Your task to perform on an android device: Go to Yahoo.com Image 0: 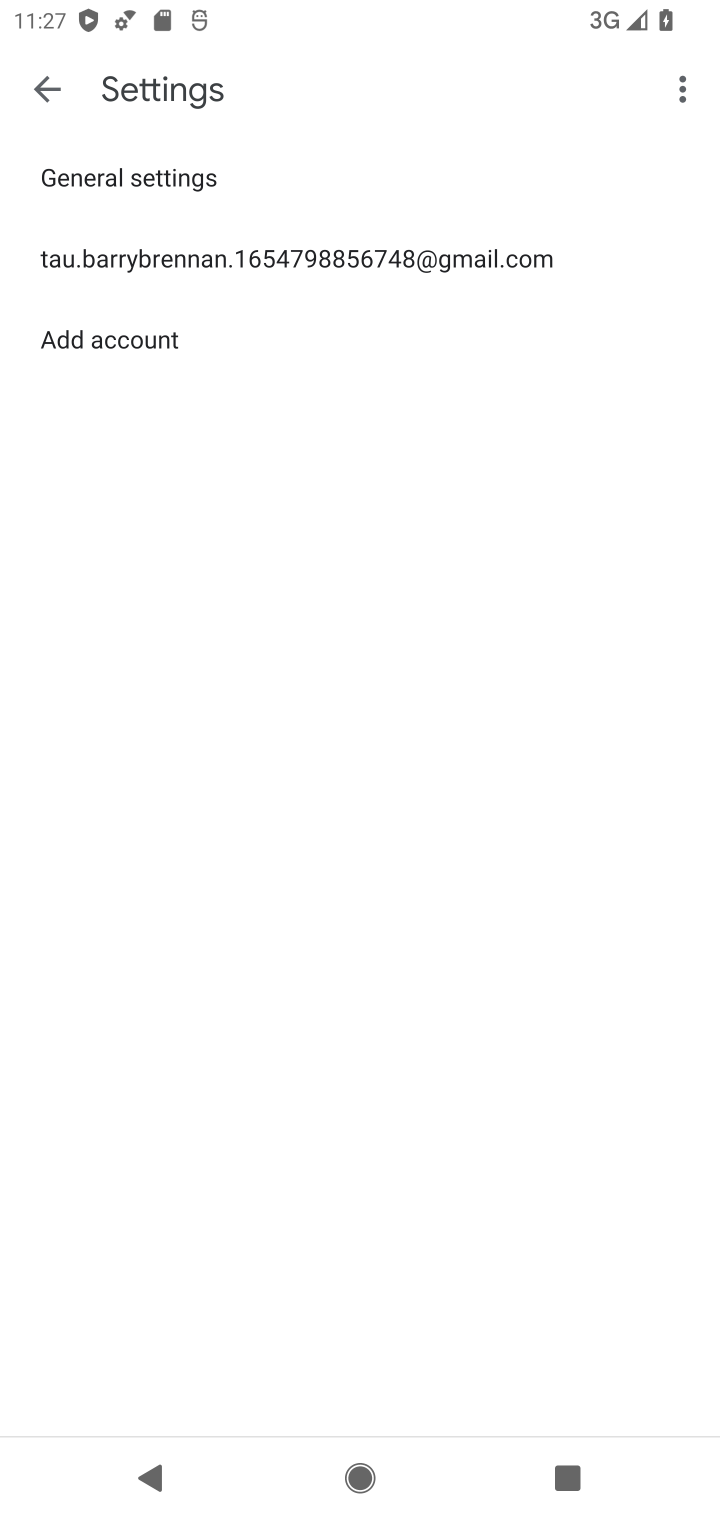
Step 0: press home button
Your task to perform on an android device: Go to Yahoo.com Image 1: 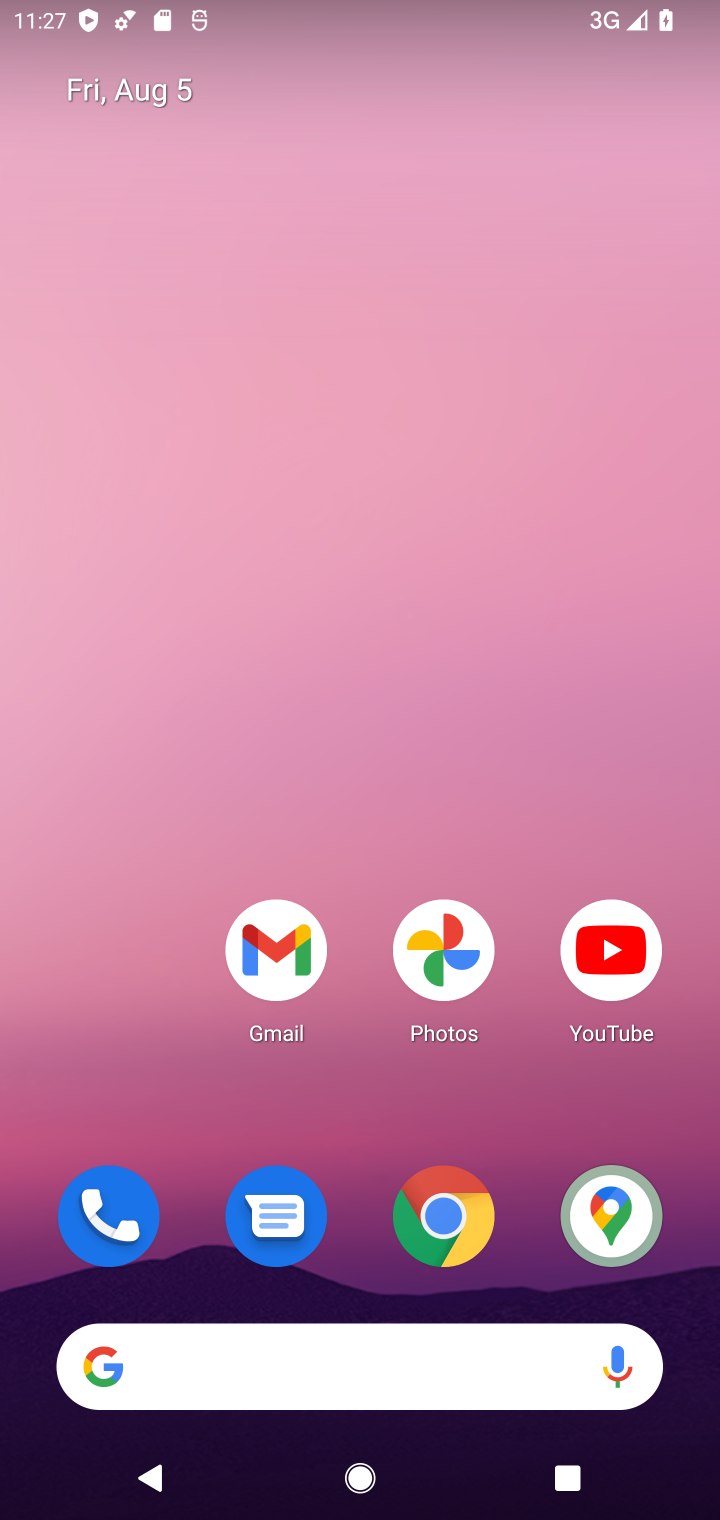
Step 1: drag from (351, 971) to (411, 316)
Your task to perform on an android device: Go to Yahoo.com Image 2: 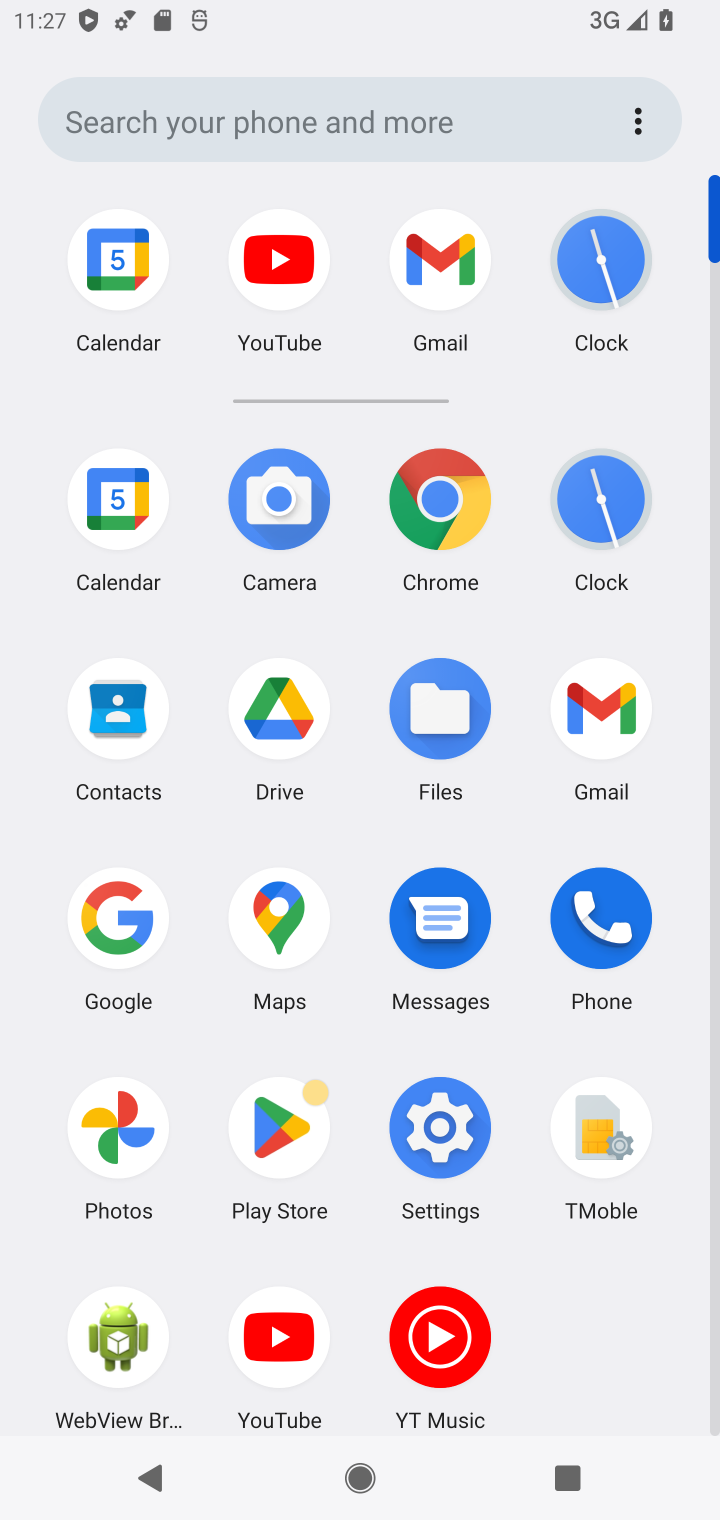
Step 2: click (441, 524)
Your task to perform on an android device: Go to Yahoo.com Image 3: 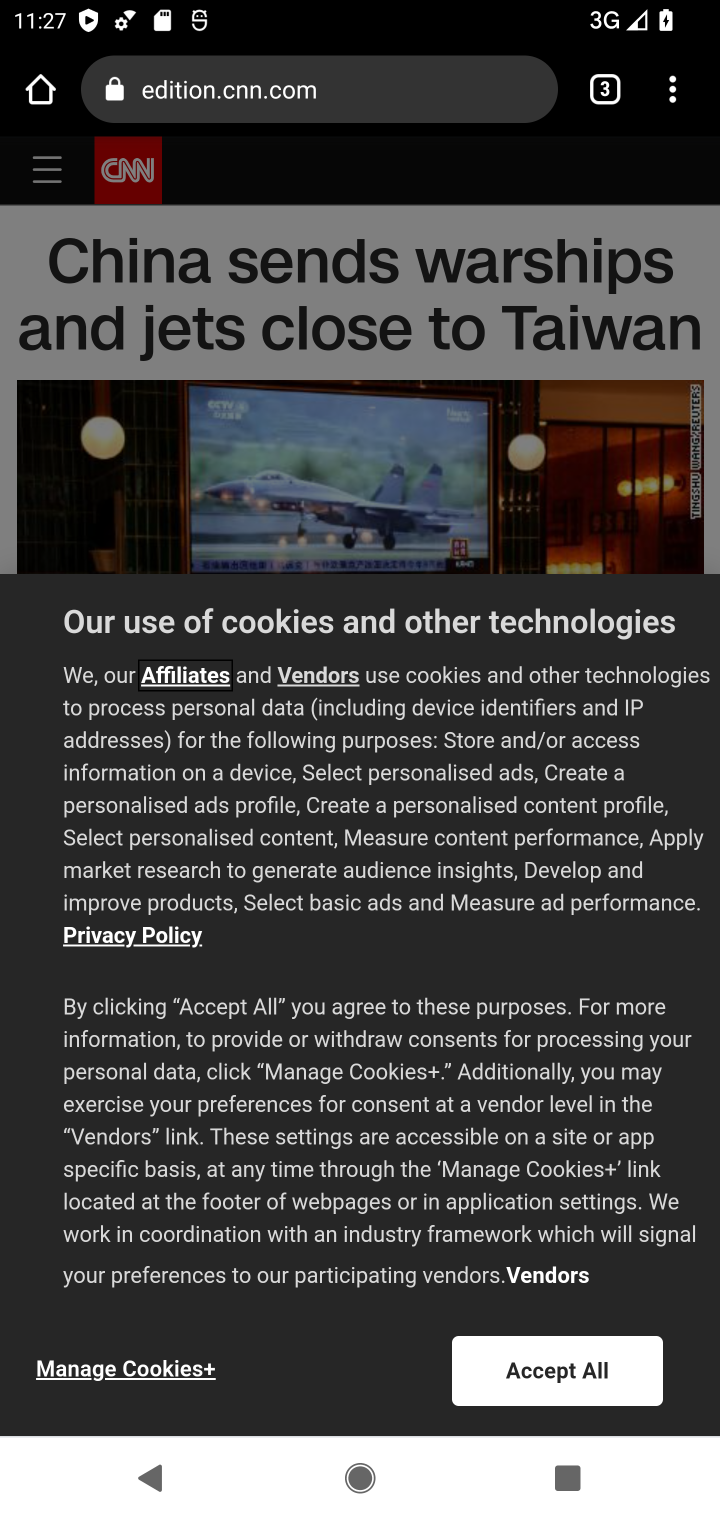
Step 3: click (253, 67)
Your task to perform on an android device: Go to Yahoo.com Image 4: 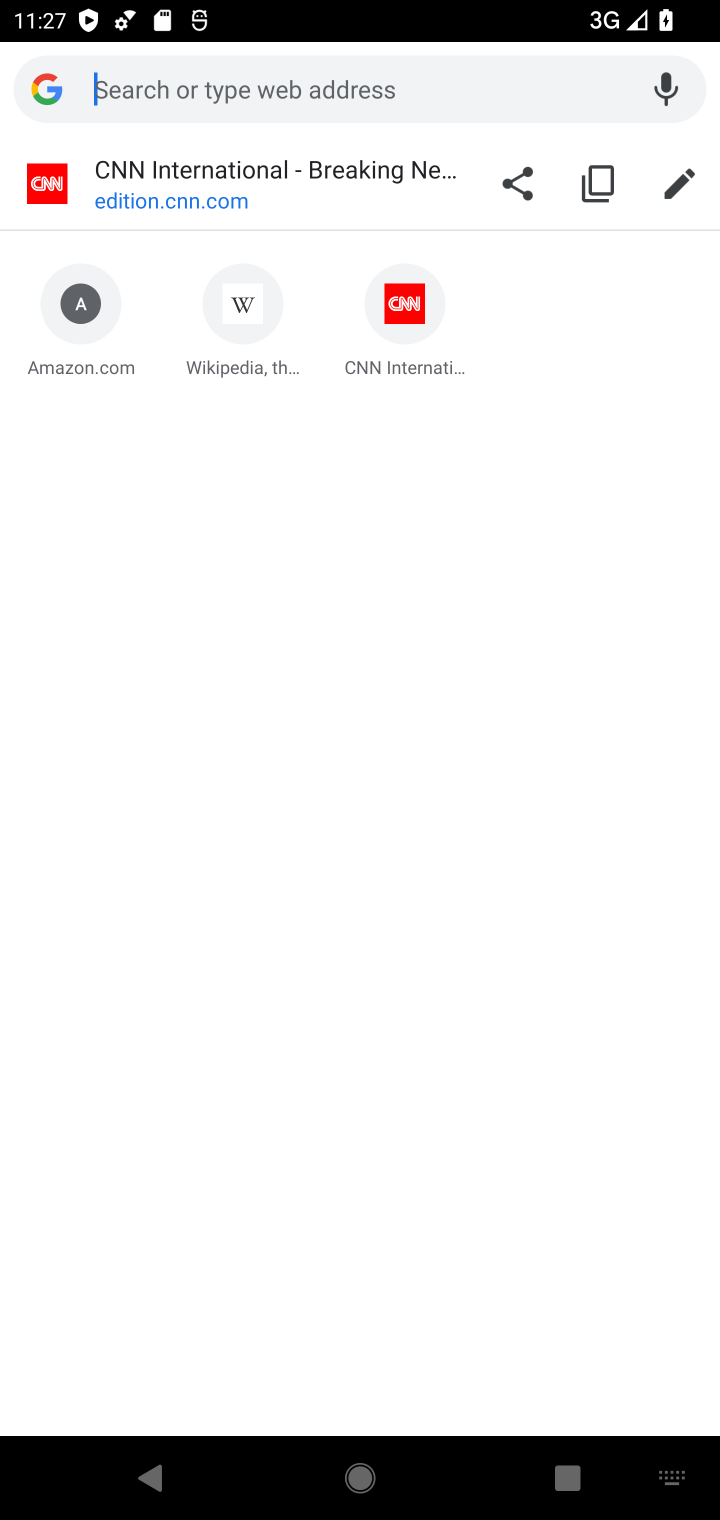
Step 4: type "yahoo.com"
Your task to perform on an android device: Go to Yahoo.com Image 5: 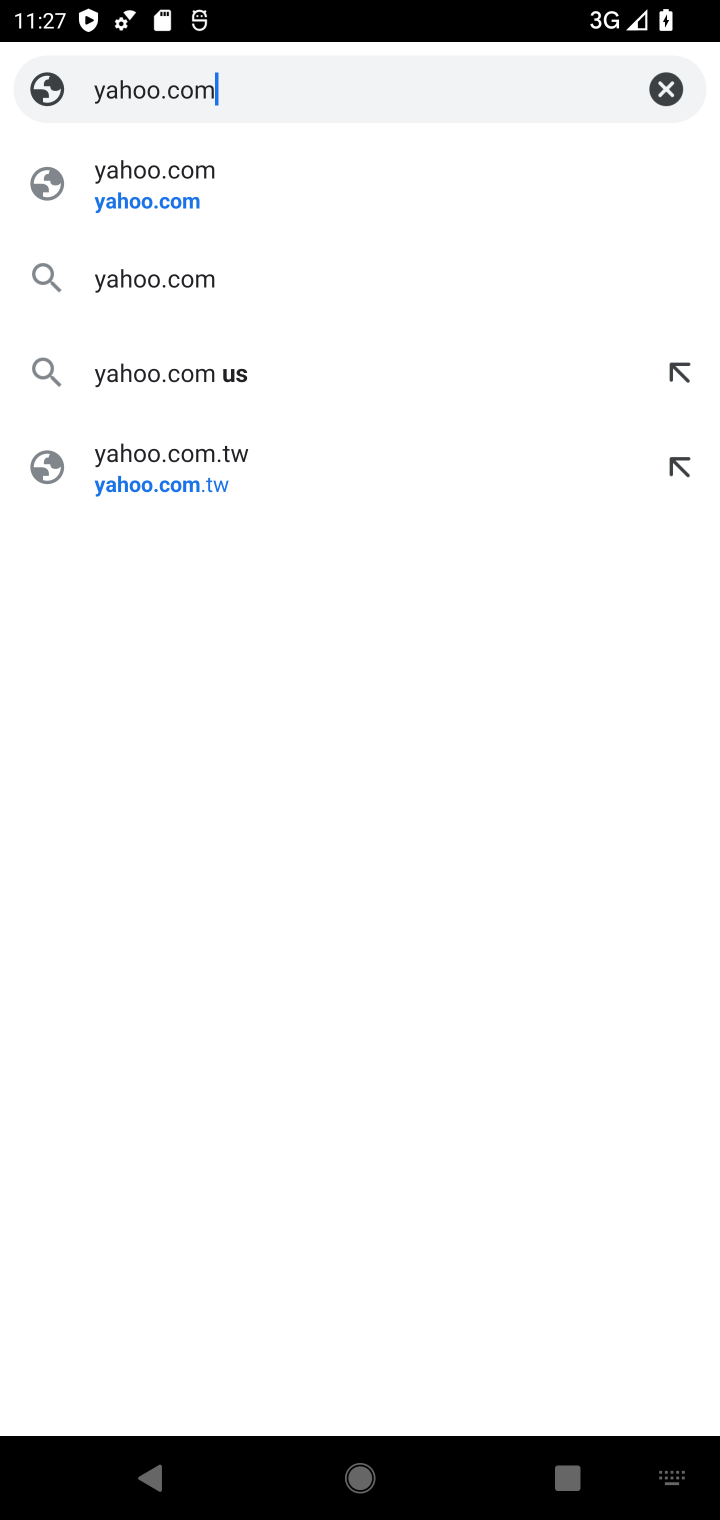
Step 5: click (223, 186)
Your task to perform on an android device: Go to Yahoo.com Image 6: 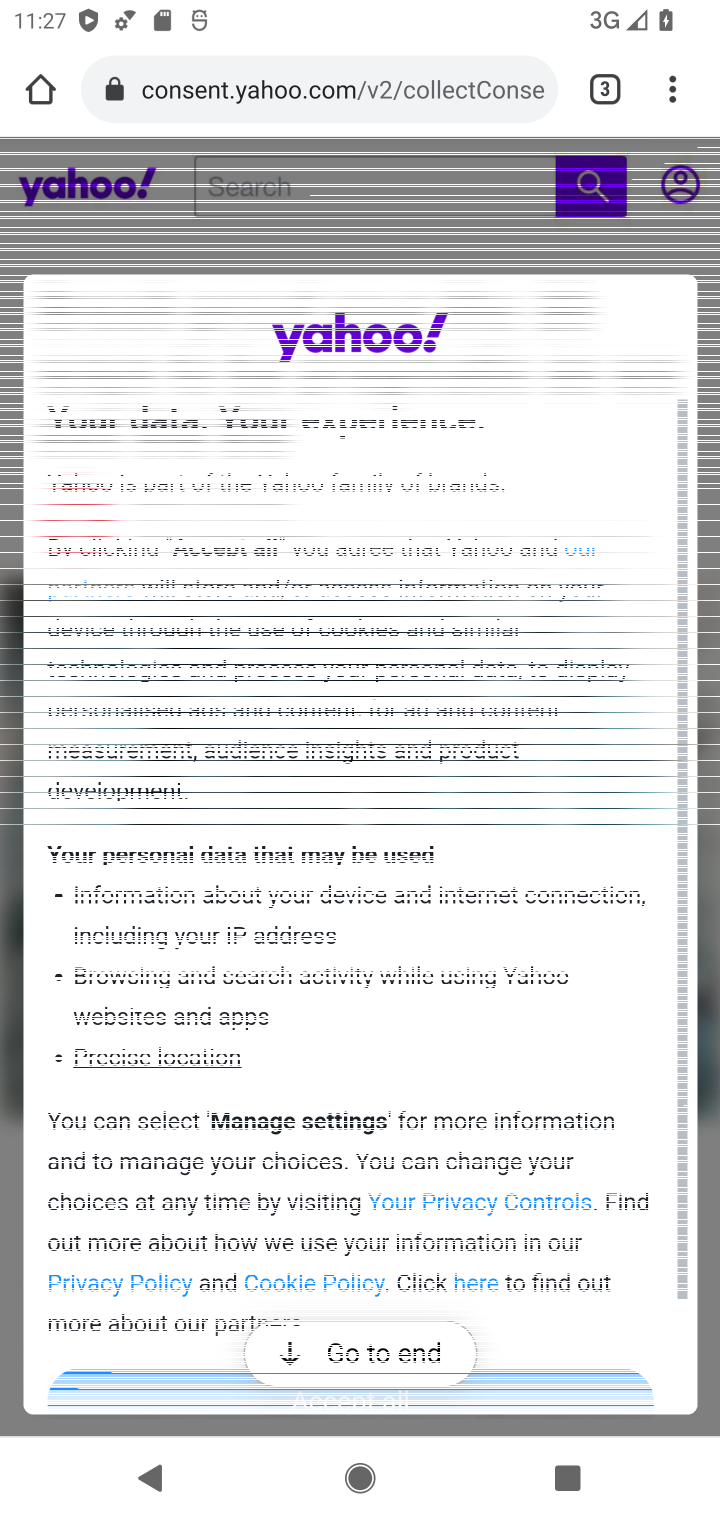
Step 6: task complete